Your task to perform on an android device: Go to location settings Image 0: 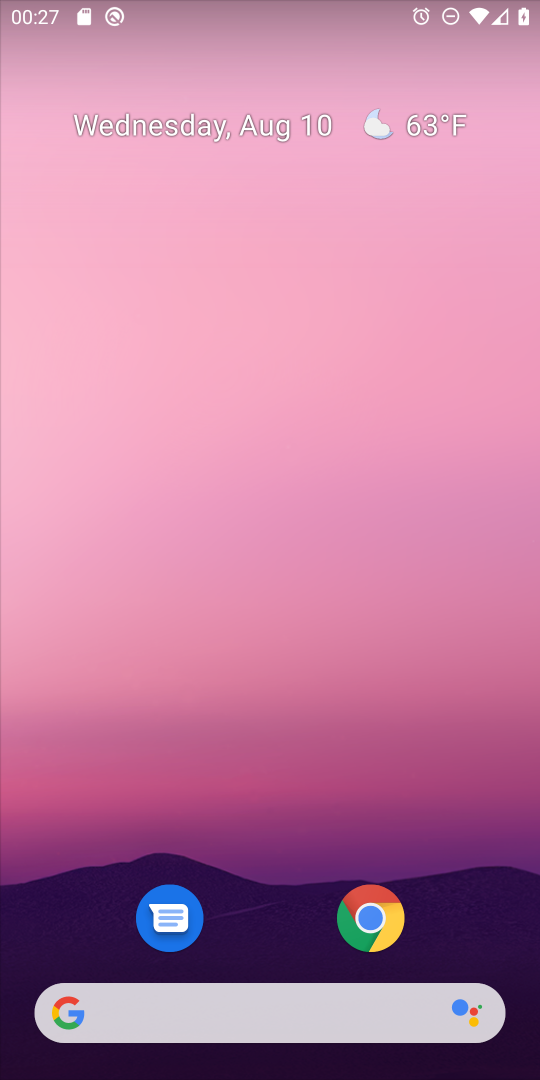
Step 0: drag from (253, 837) to (418, 22)
Your task to perform on an android device: Go to location settings Image 1: 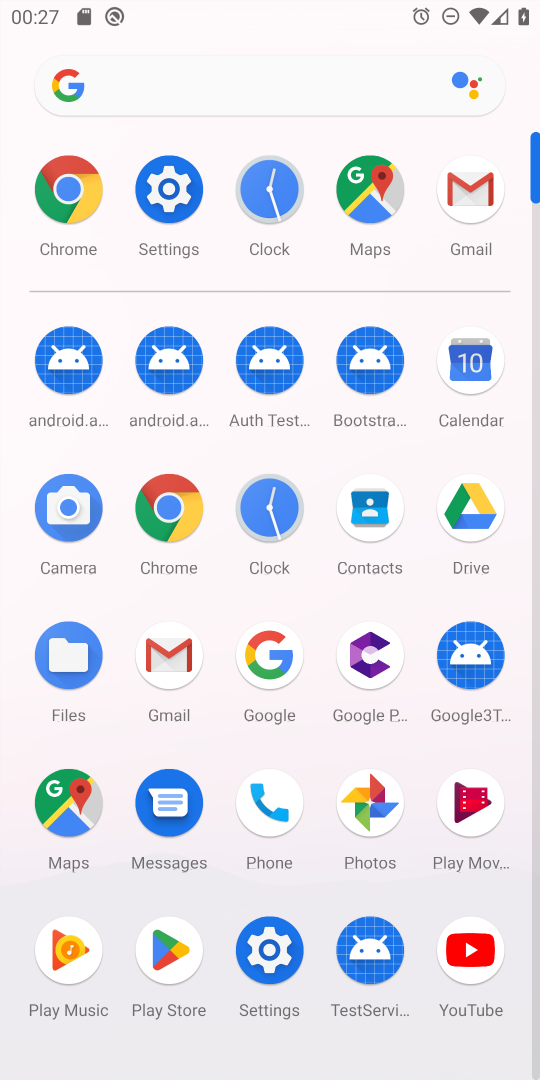
Step 1: click (272, 950)
Your task to perform on an android device: Go to location settings Image 2: 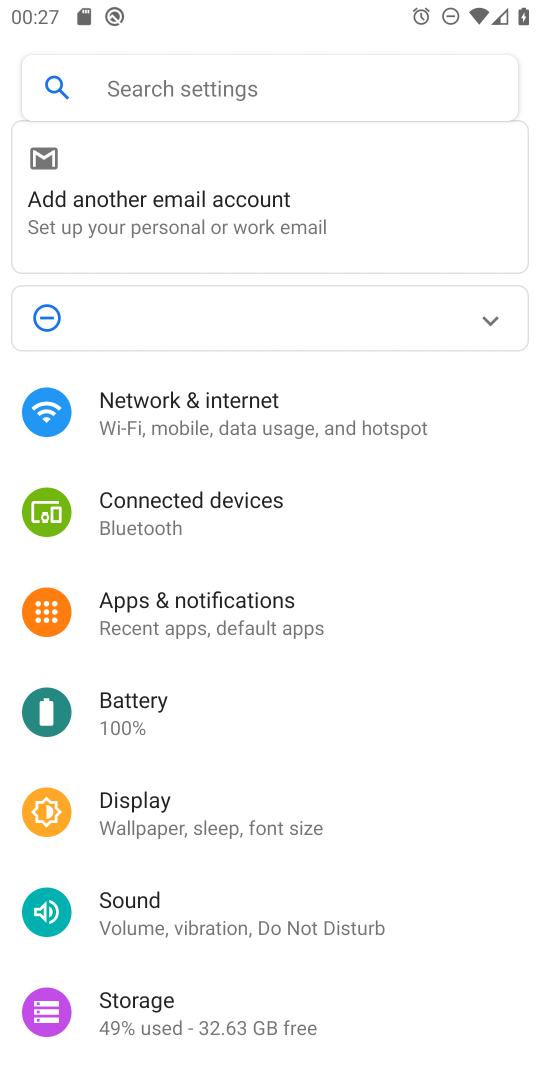
Step 2: drag from (285, 923) to (298, 393)
Your task to perform on an android device: Go to location settings Image 3: 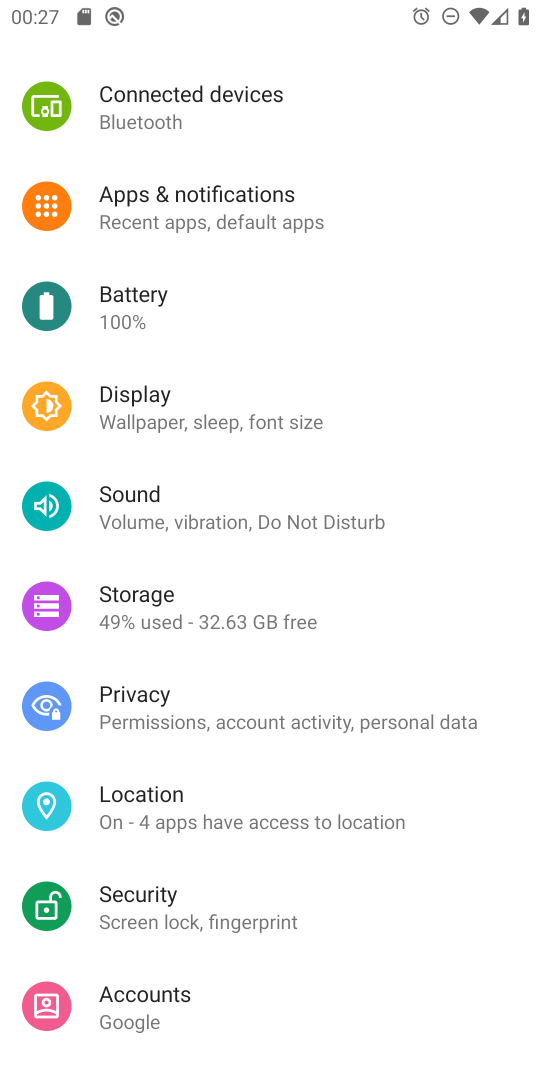
Step 3: click (141, 799)
Your task to perform on an android device: Go to location settings Image 4: 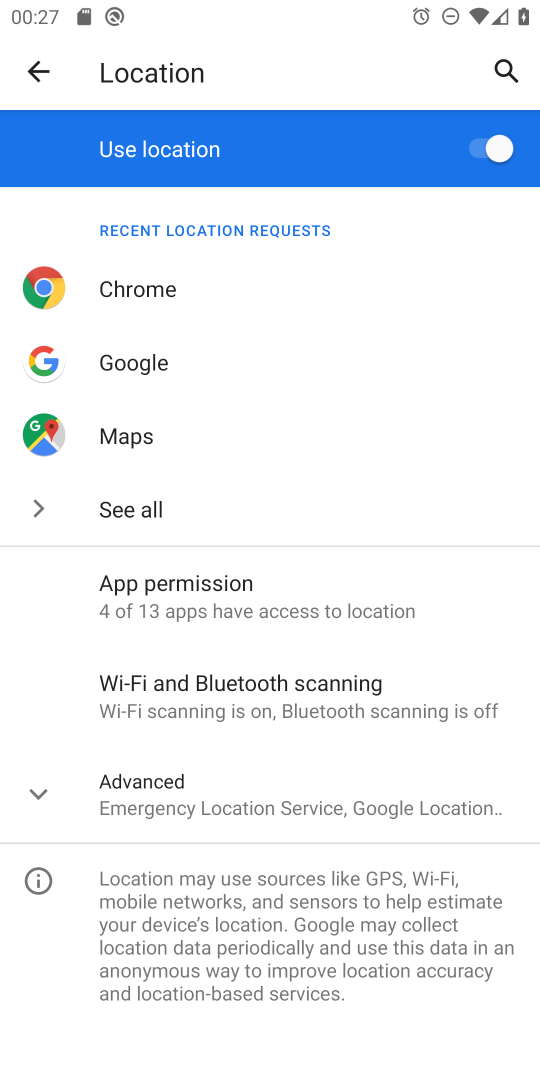
Step 4: task complete